Your task to perform on an android device: install app "Microsoft Excel" Image 0: 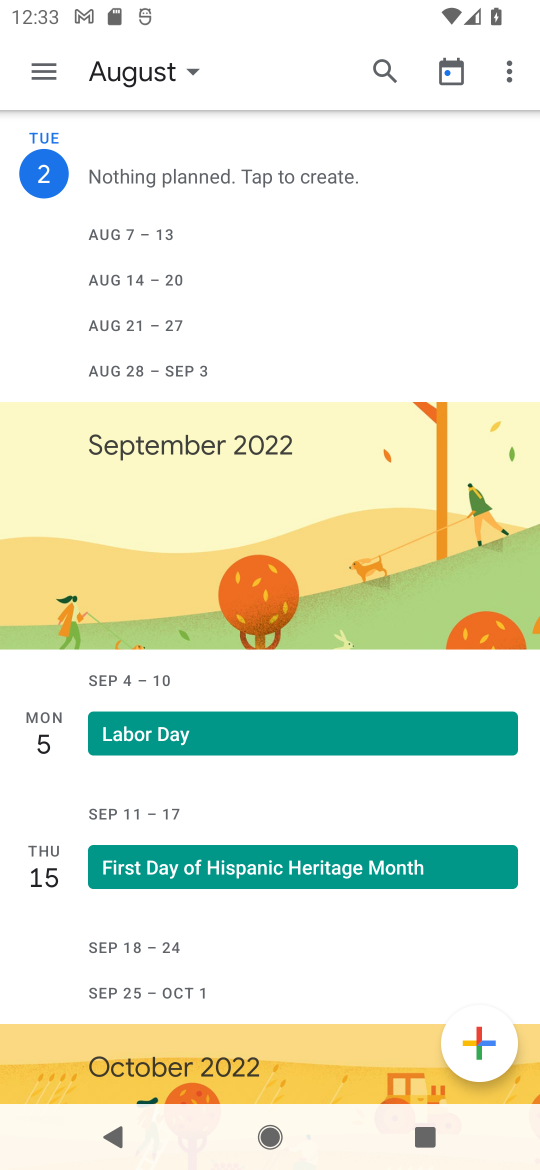
Step 0: press home button
Your task to perform on an android device: install app "Microsoft Excel" Image 1: 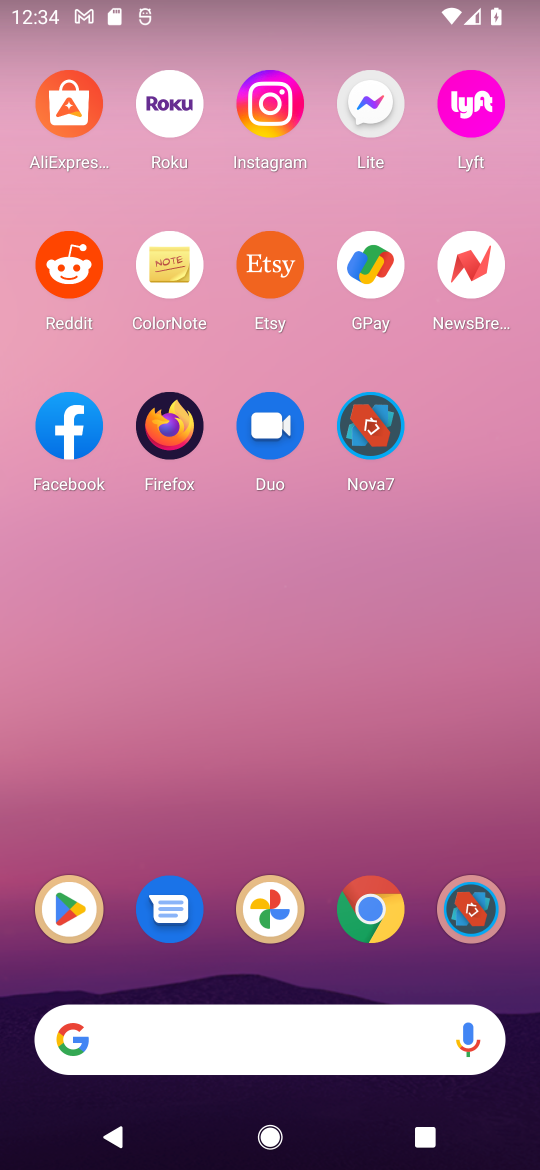
Step 1: click (75, 905)
Your task to perform on an android device: install app "Microsoft Excel" Image 2: 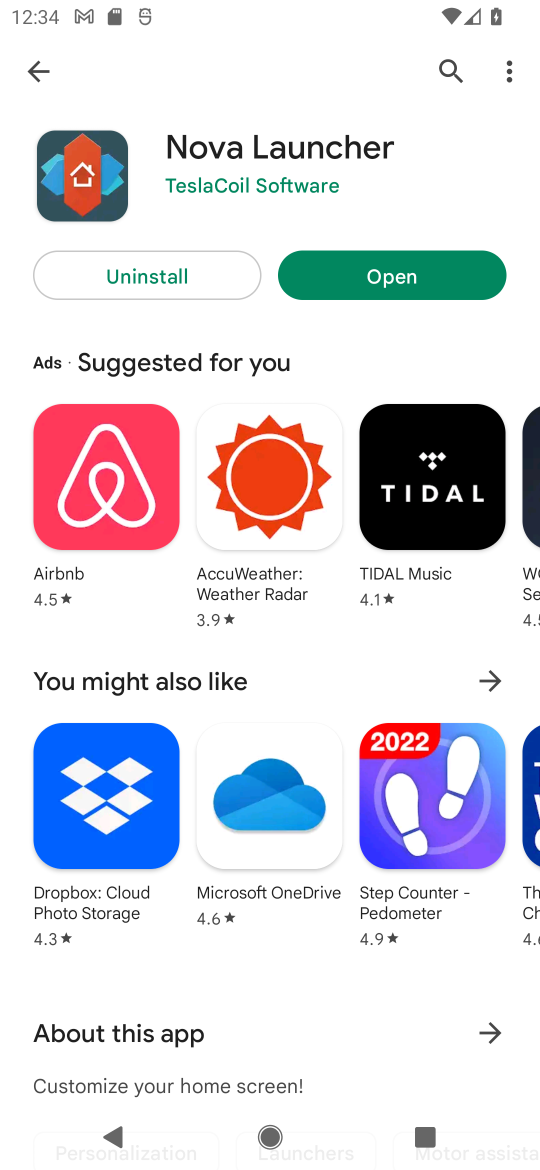
Step 2: click (448, 59)
Your task to perform on an android device: install app "Microsoft Excel" Image 3: 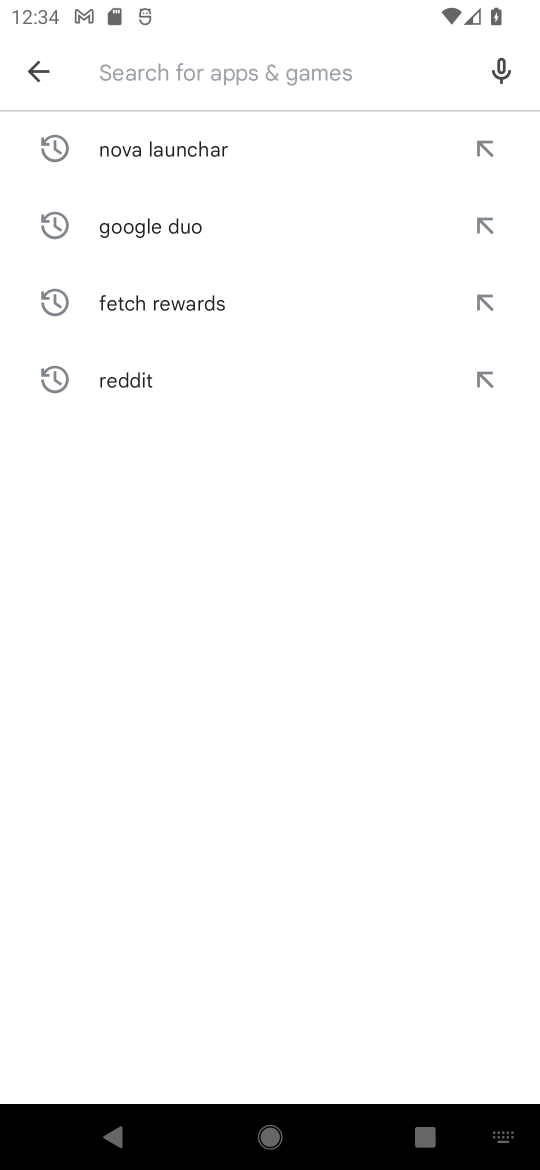
Step 3: type ""Microsoft Excel""
Your task to perform on an android device: install app "Microsoft Excel" Image 4: 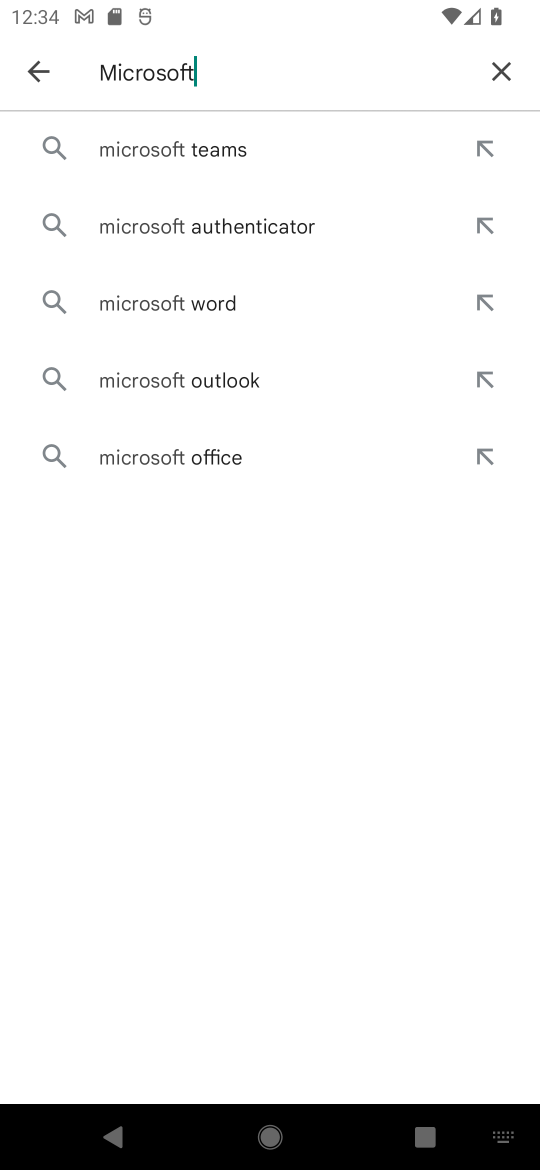
Step 4: type "Excel"
Your task to perform on an android device: install app "Microsoft Excel" Image 5: 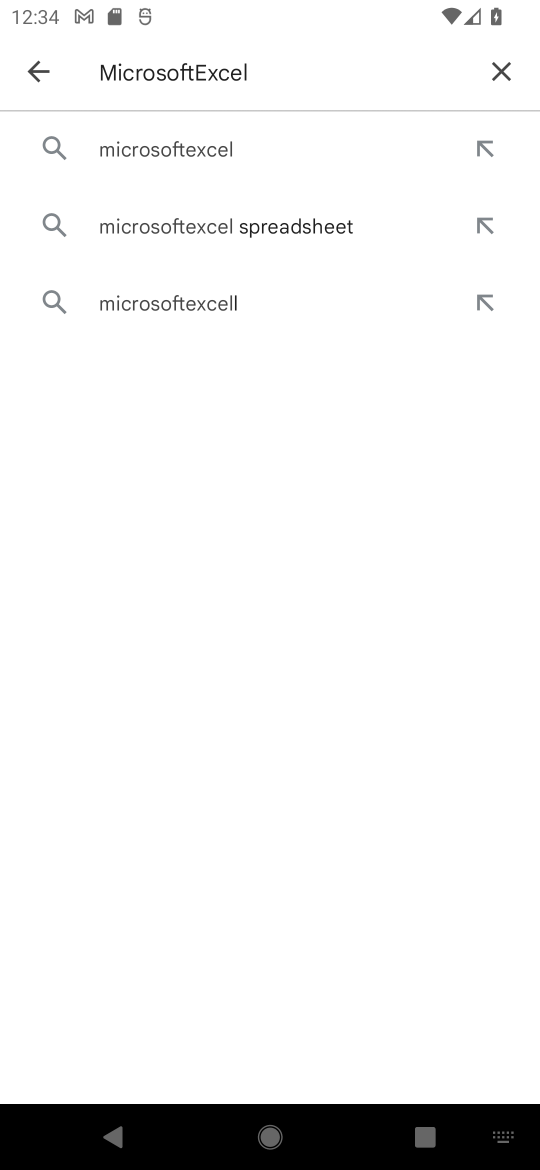
Step 5: click (200, 138)
Your task to perform on an android device: install app "Microsoft Excel" Image 6: 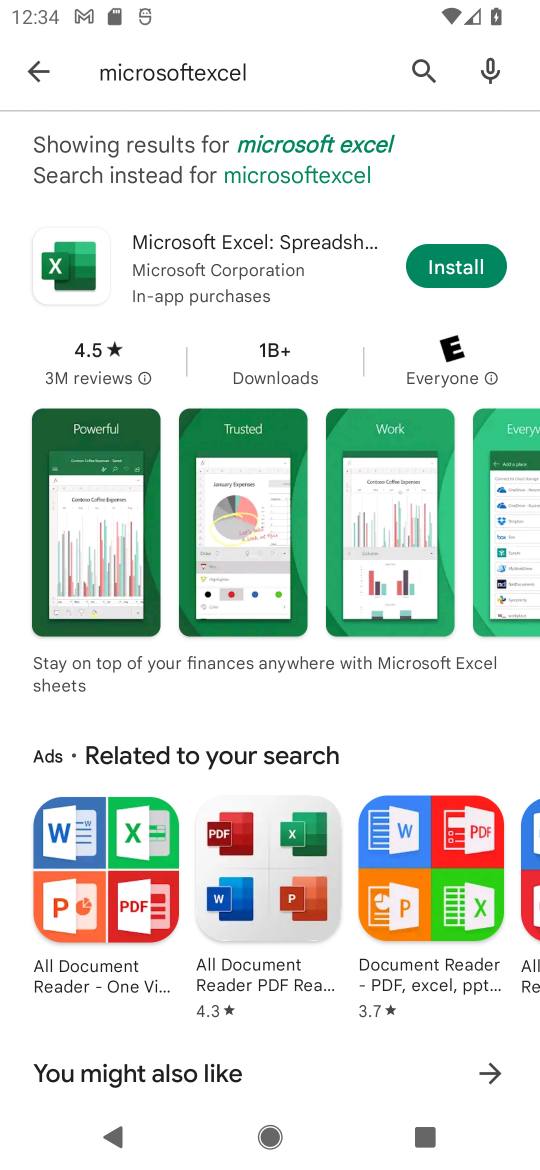
Step 6: click (443, 257)
Your task to perform on an android device: install app "Microsoft Excel" Image 7: 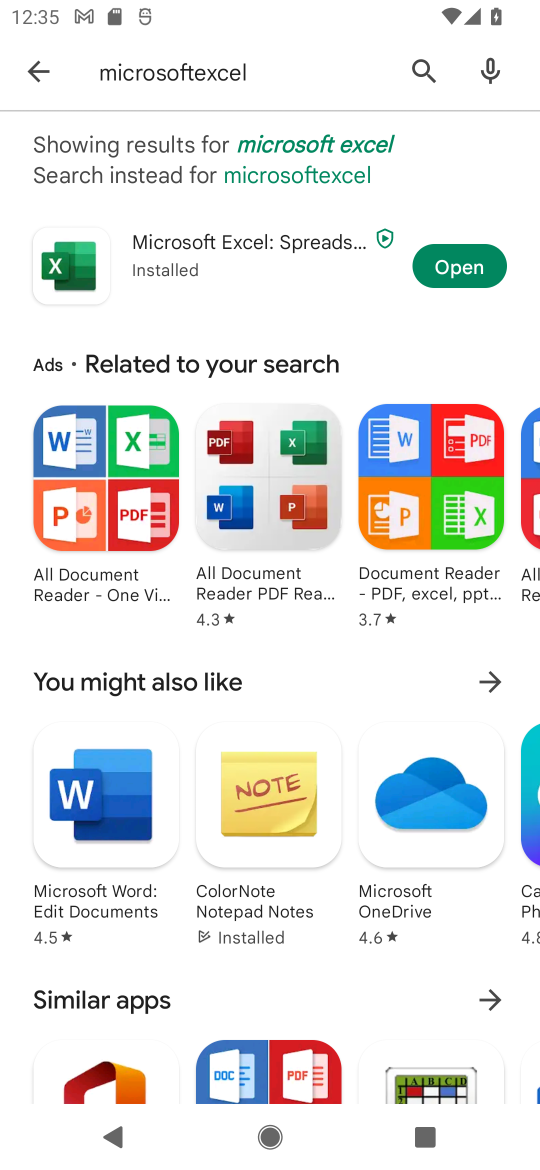
Step 7: task complete